Your task to perform on an android device: turn off notifications settings in the gmail app Image 0: 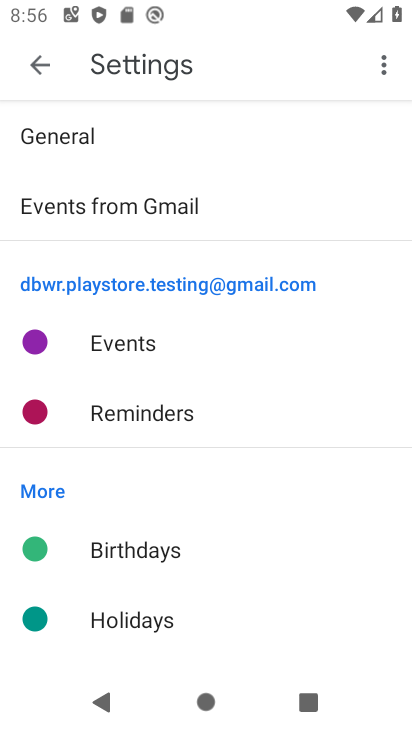
Step 0: press home button
Your task to perform on an android device: turn off notifications settings in the gmail app Image 1: 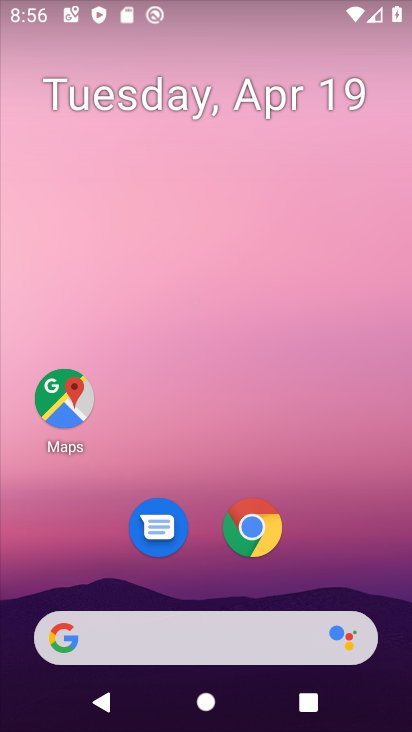
Step 1: drag from (276, 556) to (288, 72)
Your task to perform on an android device: turn off notifications settings in the gmail app Image 2: 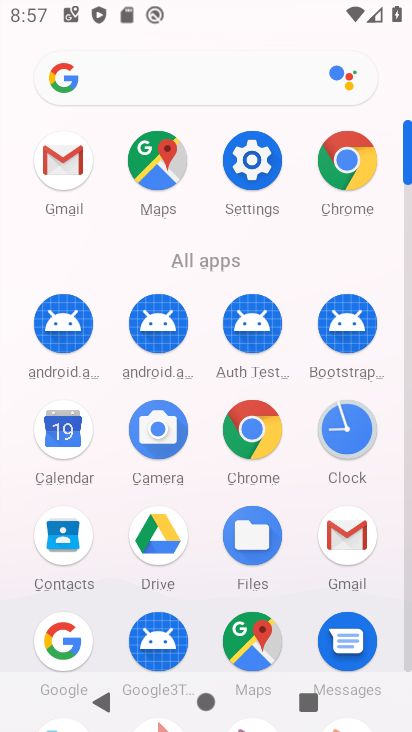
Step 2: click (62, 156)
Your task to perform on an android device: turn off notifications settings in the gmail app Image 3: 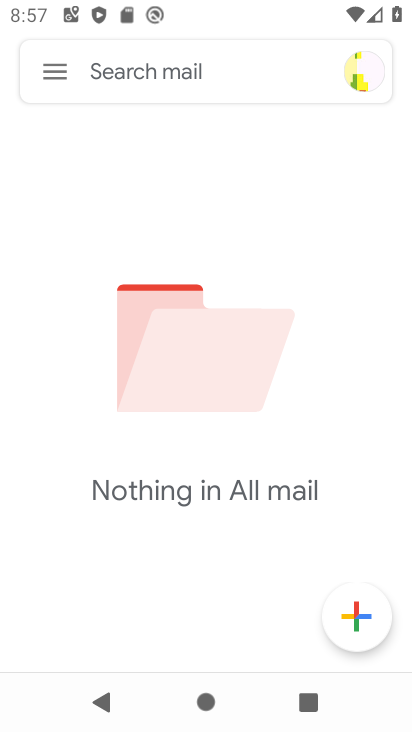
Step 3: click (51, 74)
Your task to perform on an android device: turn off notifications settings in the gmail app Image 4: 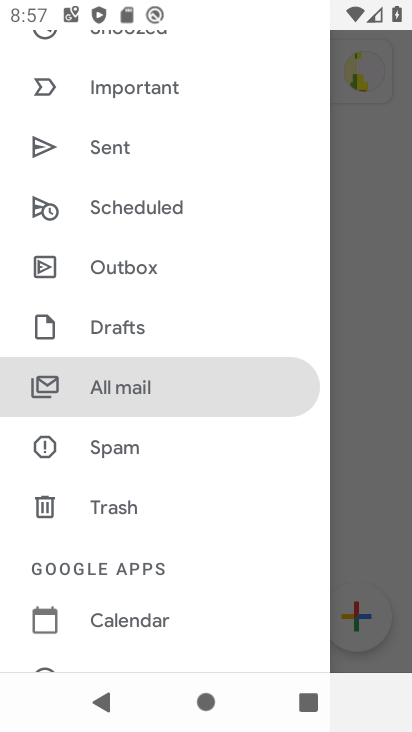
Step 4: drag from (171, 561) to (193, 117)
Your task to perform on an android device: turn off notifications settings in the gmail app Image 5: 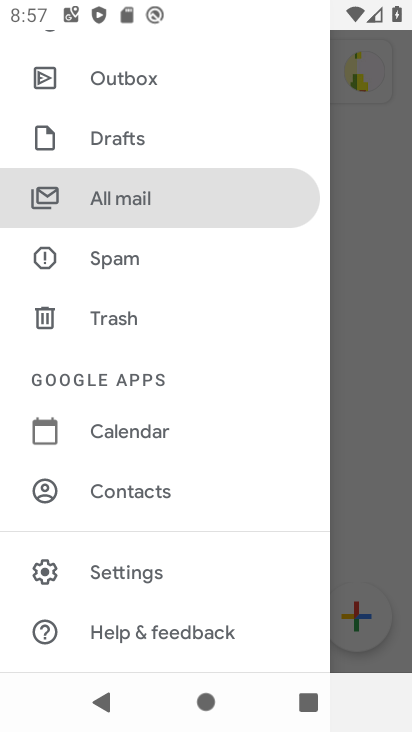
Step 5: click (171, 553)
Your task to perform on an android device: turn off notifications settings in the gmail app Image 6: 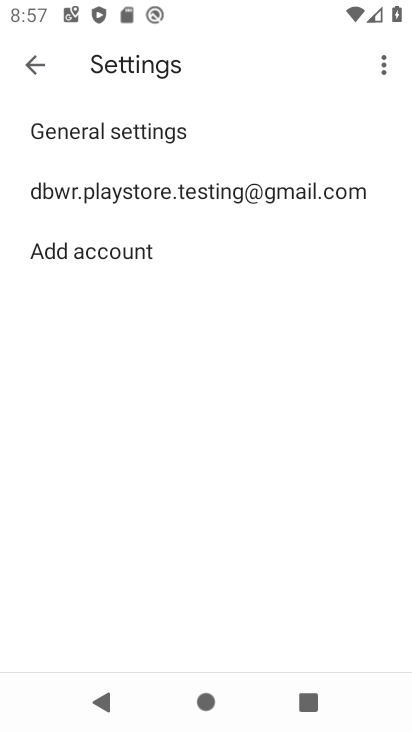
Step 6: click (214, 196)
Your task to perform on an android device: turn off notifications settings in the gmail app Image 7: 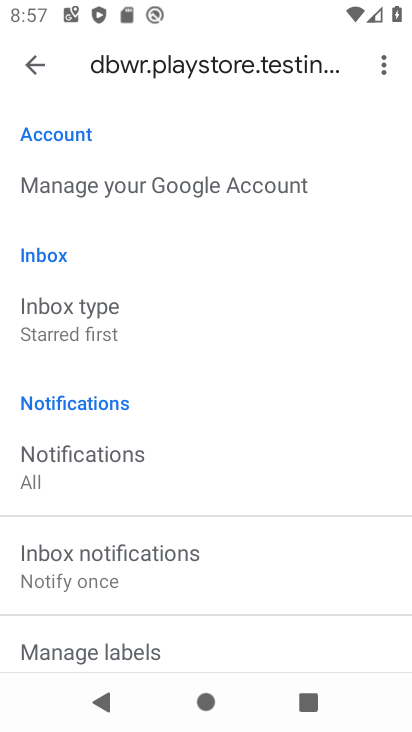
Step 7: click (117, 471)
Your task to perform on an android device: turn off notifications settings in the gmail app Image 8: 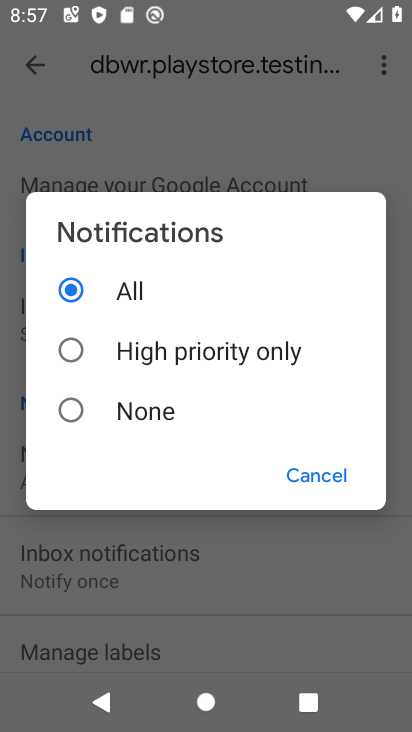
Step 8: click (131, 409)
Your task to perform on an android device: turn off notifications settings in the gmail app Image 9: 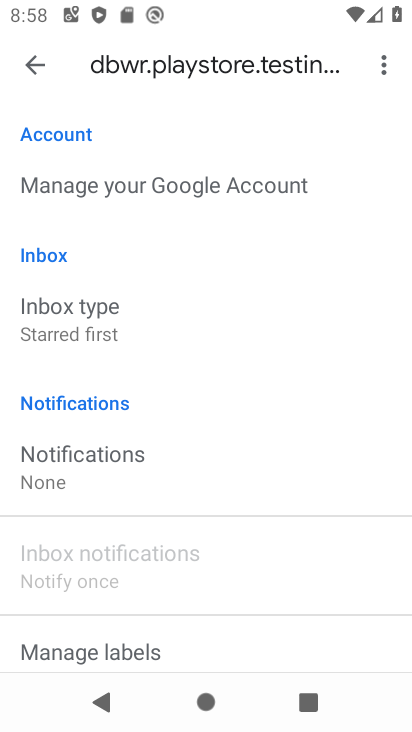
Step 9: task complete